Your task to perform on an android device: turn on notifications settings in the gmail app Image 0: 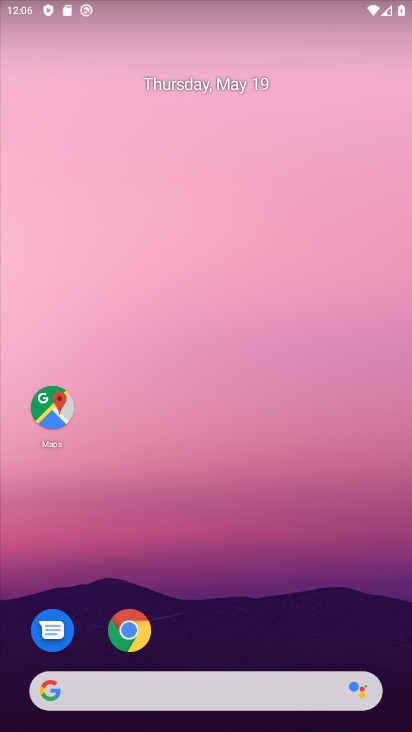
Step 0: drag from (190, 646) to (249, 240)
Your task to perform on an android device: turn on notifications settings in the gmail app Image 1: 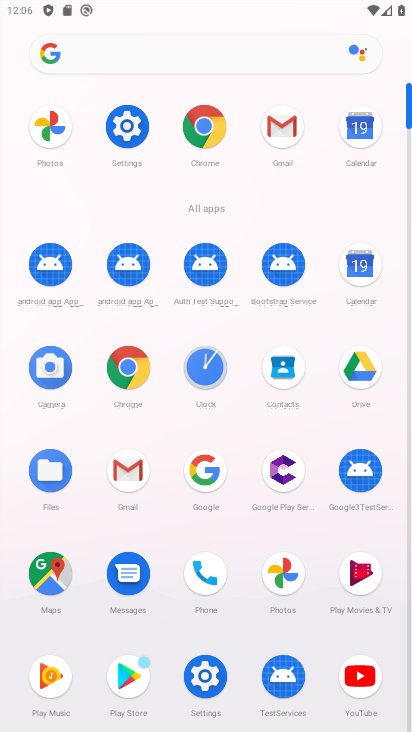
Step 1: click (287, 104)
Your task to perform on an android device: turn on notifications settings in the gmail app Image 2: 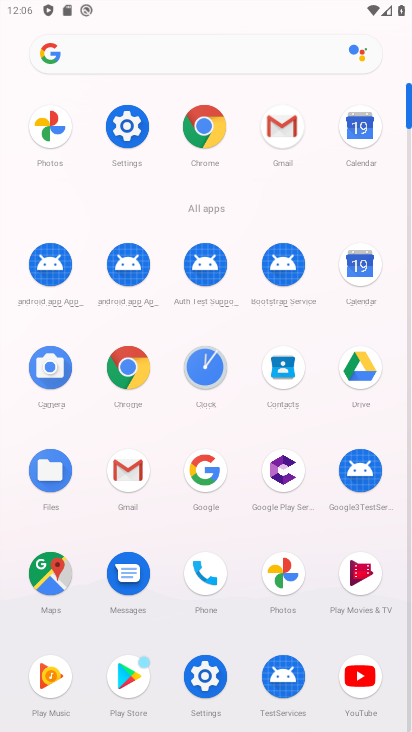
Step 2: click (286, 103)
Your task to perform on an android device: turn on notifications settings in the gmail app Image 3: 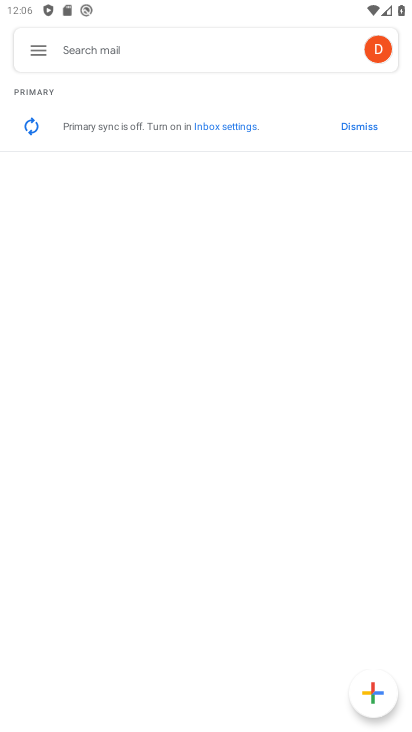
Step 3: drag from (257, 574) to (223, 0)
Your task to perform on an android device: turn on notifications settings in the gmail app Image 4: 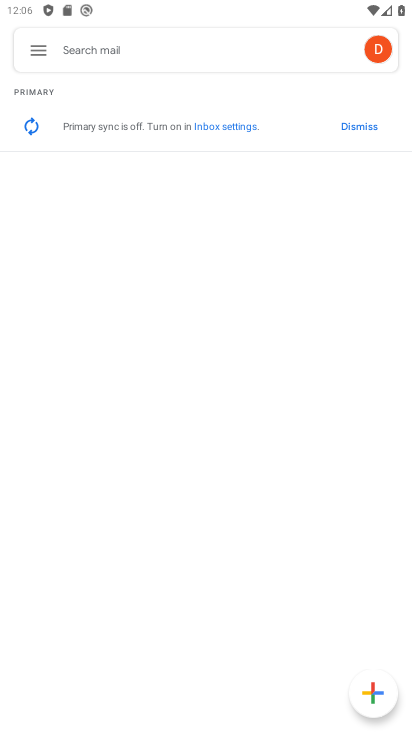
Step 4: click (41, 43)
Your task to perform on an android device: turn on notifications settings in the gmail app Image 5: 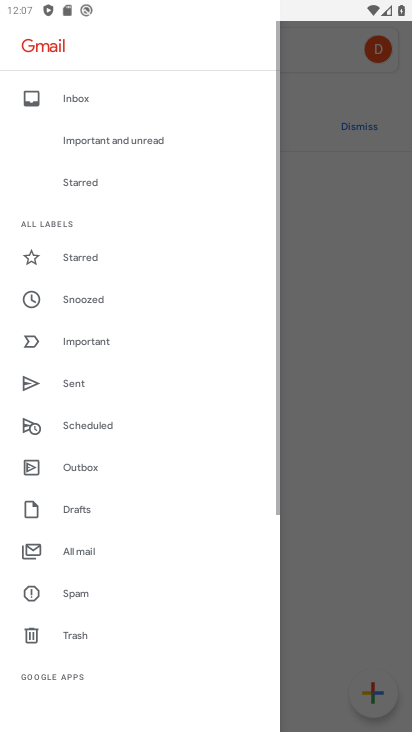
Step 5: drag from (139, 664) to (127, 18)
Your task to perform on an android device: turn on notifications settings in the gmail app Image 6: 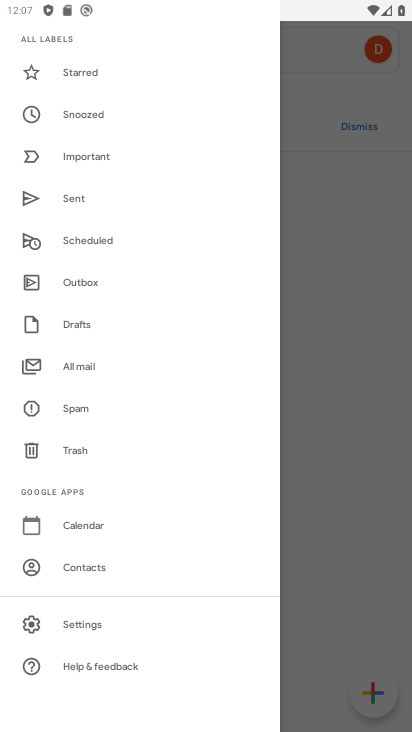
Step 6: click (76, 619)
Your task to perform on an android device: turn on notifications settings in the gmail app Image 7: 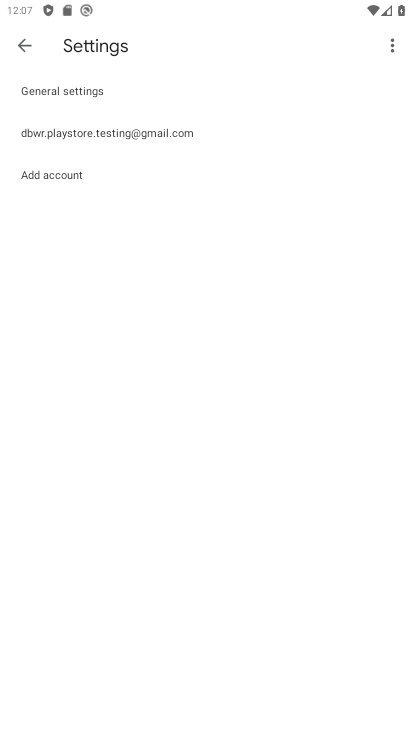
Step 7: click (153, 128)
Your task to perform on an android device: turn on notifications settings in the gmail app Image 8: 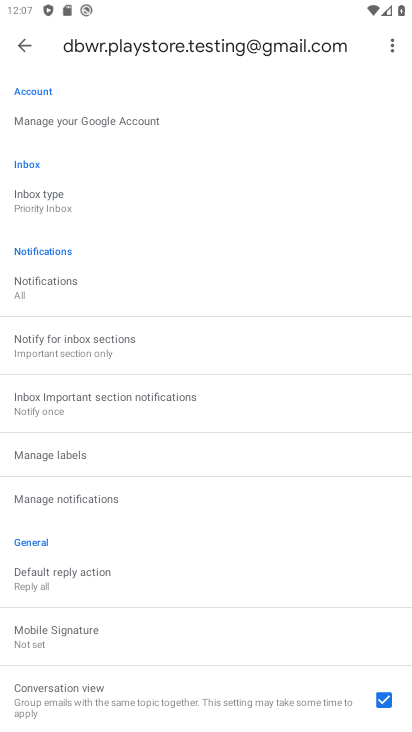
Step 8: click (94, 491)
Your task to perform on an android device: turn on notifications settings in the gmail app Image 9: 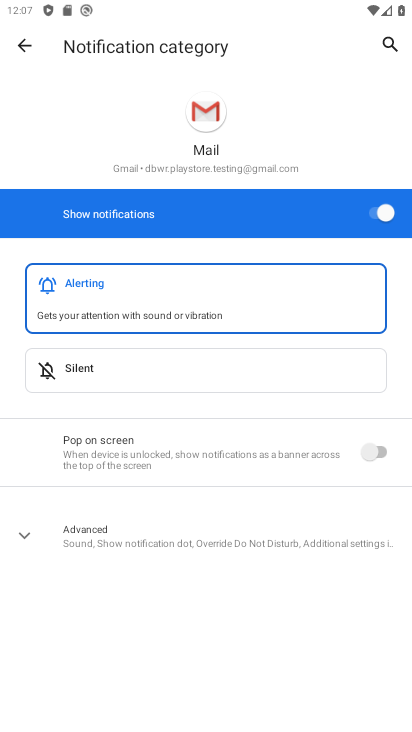
Step 9: task complete